Your task to perform on an android device: empty trash in the gmail app Image 0: 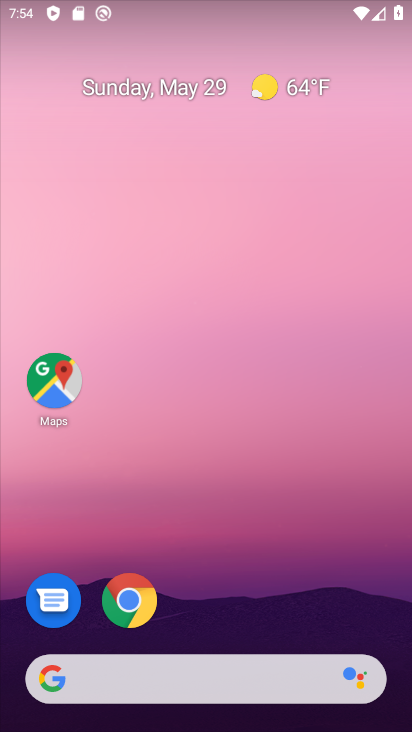
Step 0: drag from (221, 626) to (329, 20)
Your task to perform on an android device: empty trash in the gmail app Image 1: 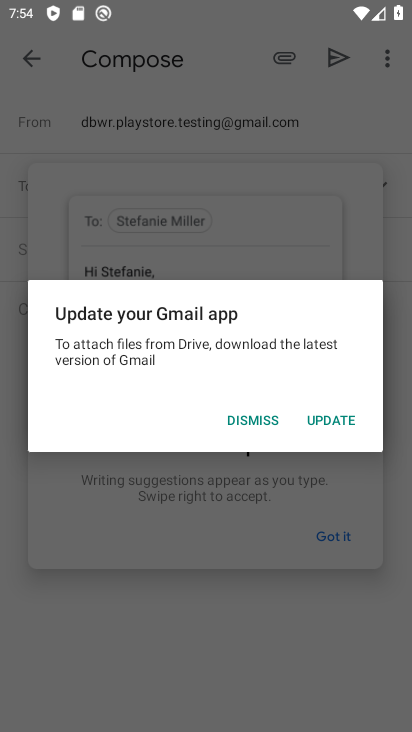
Step 1: press home button
Your task to perform on an android device: empty trash in the gmail app Image 2: 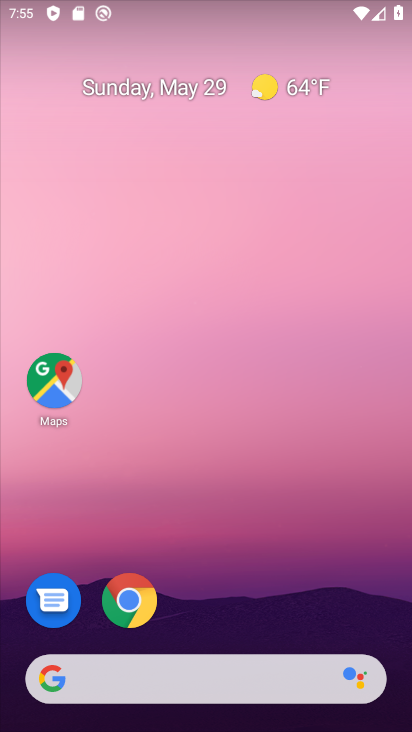
Step 2: drag from (205, 597) to (176, 6)
Your task to perform on an android device: empty trash in the gmail app Image 3: 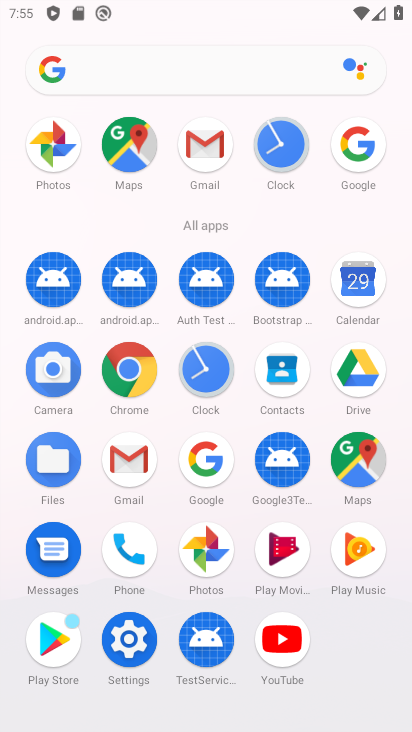
Step 3: click (200, 149)
Your task to perform on an android device: empty trash in the gmail app Image 4: 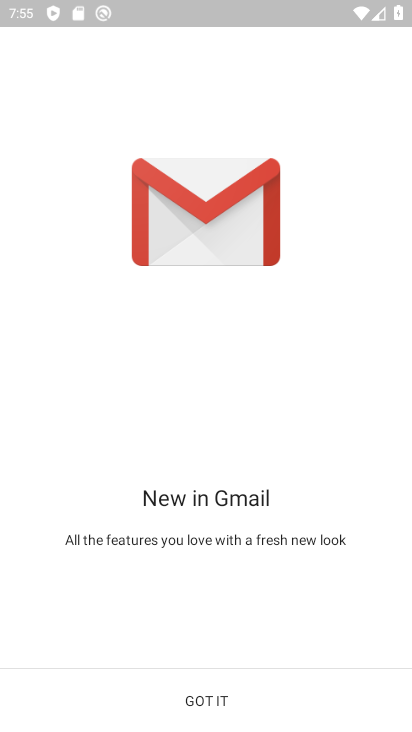
Step 4: click (150, 705)
Your task to perform on an android device: empty trash in the gmail app Image 5: 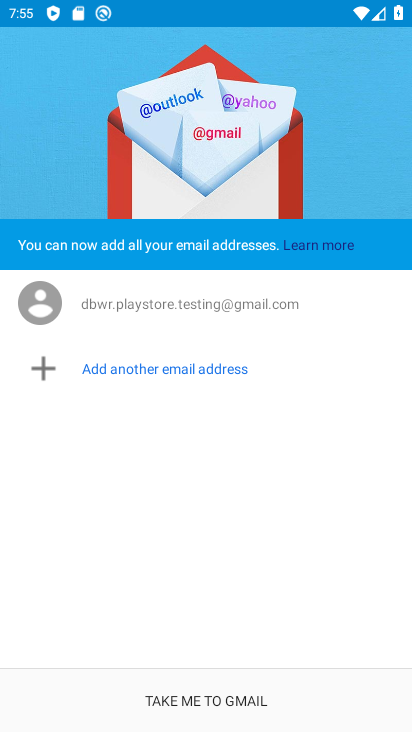
Step 5: click (311, 694)
Your task to perform on an android device: empty trash in the gmail app Image 6: 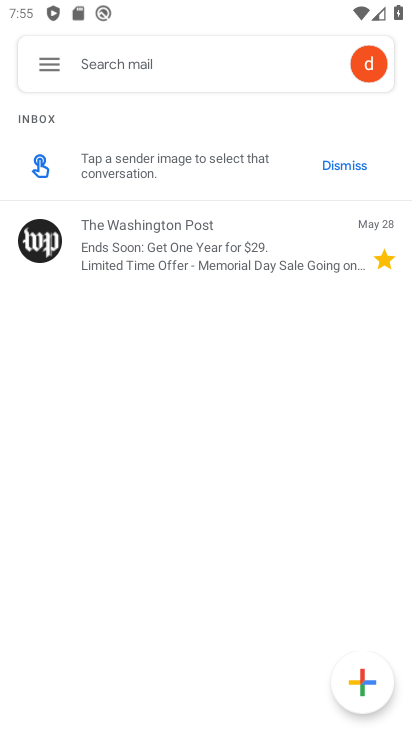
Step 6: click (46, 77)
Your task to perform on an android device: empty trash in the gmail app Image 7: 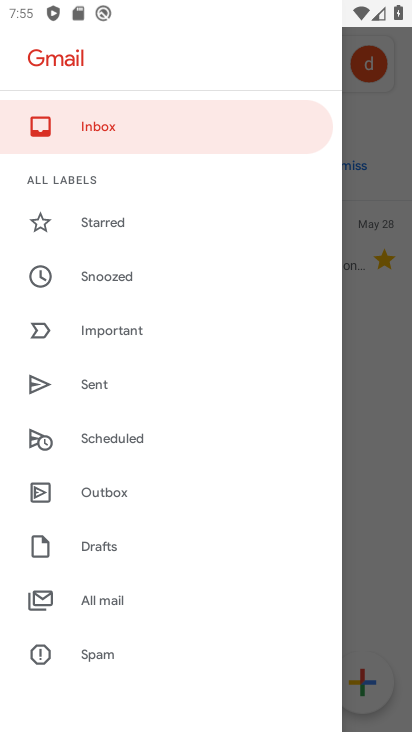
Step 7: drag from (129, 640) to (188, 192)
Your task to perform on an android device: empty trash in the gmail app Image 8: 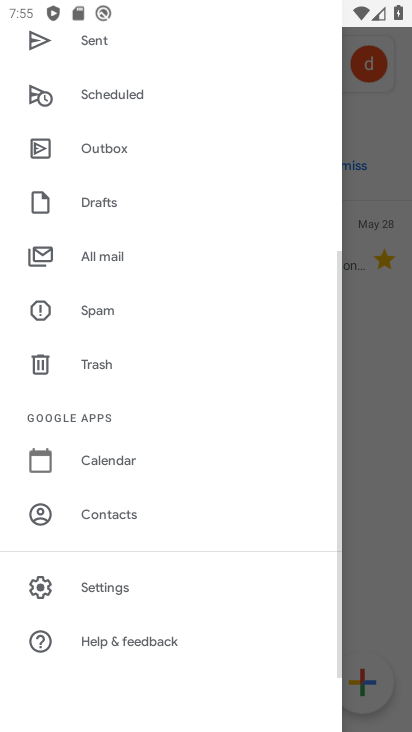
Step 8: click (68, 362)
Your task to perform on an android device: empty trash in the gmail app Image 9: 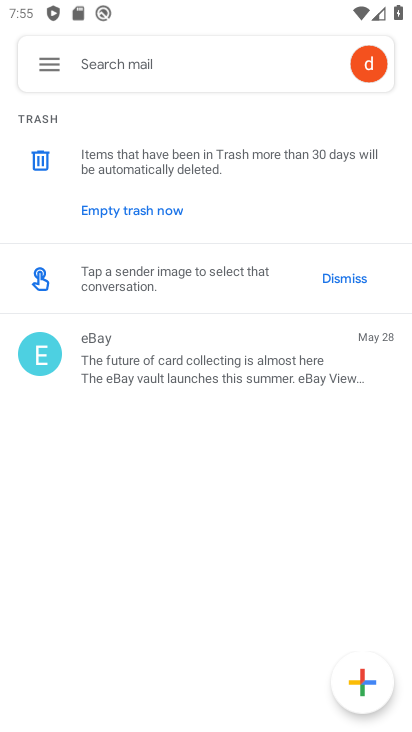
Step 9: click (124, 214)
Your task to perform on an android device: empty trash in the gmail app Image 10: 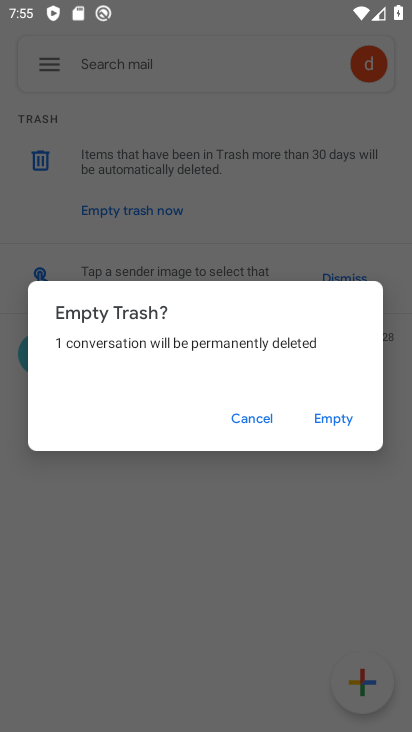
Step 10: click (337, 420)
Your task to perform on an android device: empty trash in the gmail app Image 11: 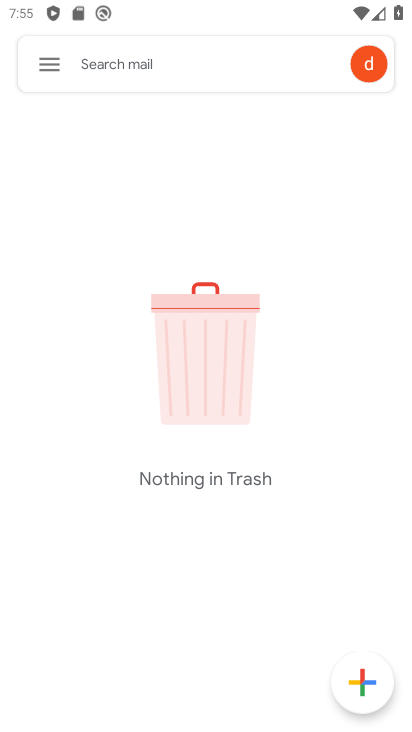
Step 11: task complete